Your task to perform on an android device: Open Google Maps and go to "Timeline" Image 0: 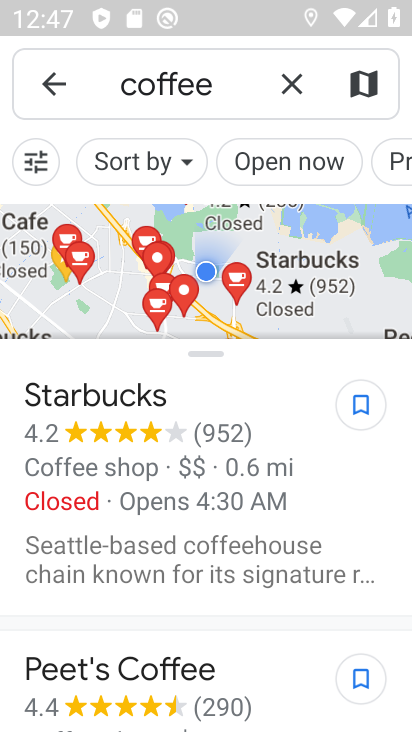
Step 0: press back button
Your task to perform on an android device: Open Google Maps and go to "Timeline" Image 1: 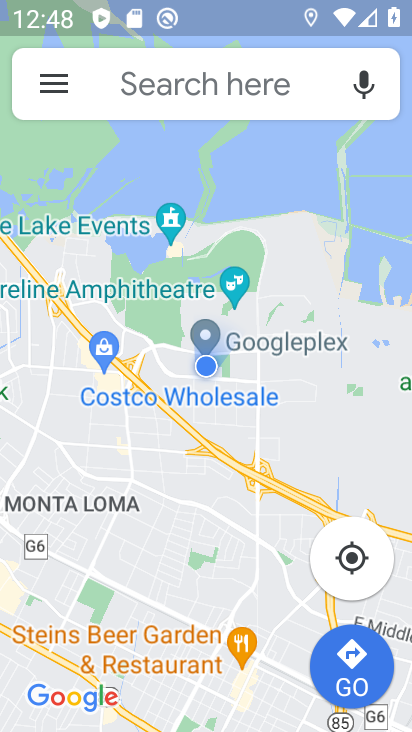
Step 1: click (58, 85)
Your task to perform on an android device: Open Google Maps and go to "Timeline" Image 2: 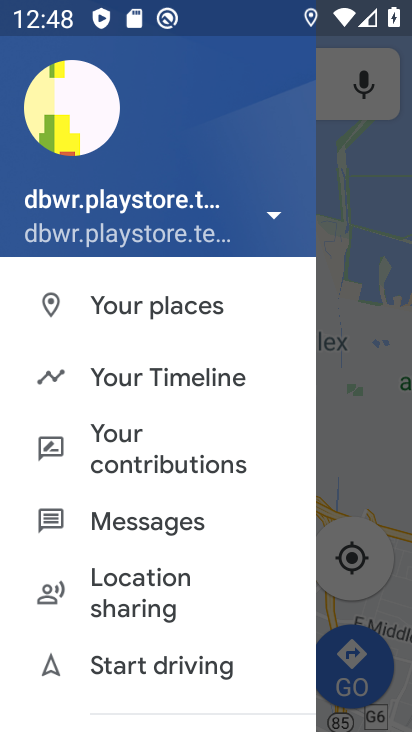
Step 2: drag from (257, 556) to (281, 400)
Your task to perform on an android device: Open Google Maps and go to "Timeline" Image 3: 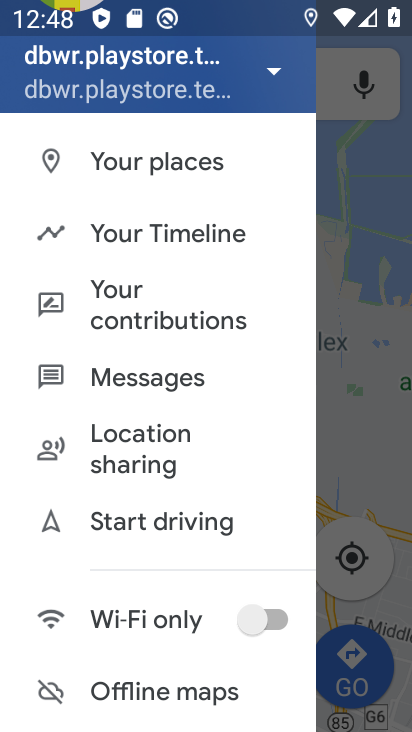
Step 3: click (216, 254)
Your task to perform on an android device: Open Google Maps and go to "Timeline" Image 4: 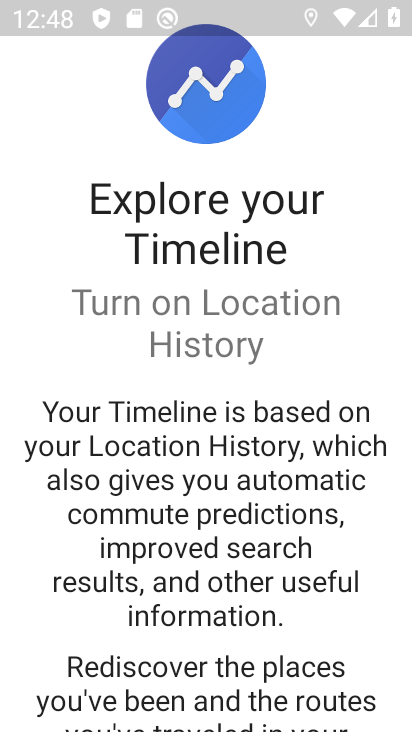
Step 4: task complete